Your task to perform on an android device: turn off data saver in the chrome app Image 0: 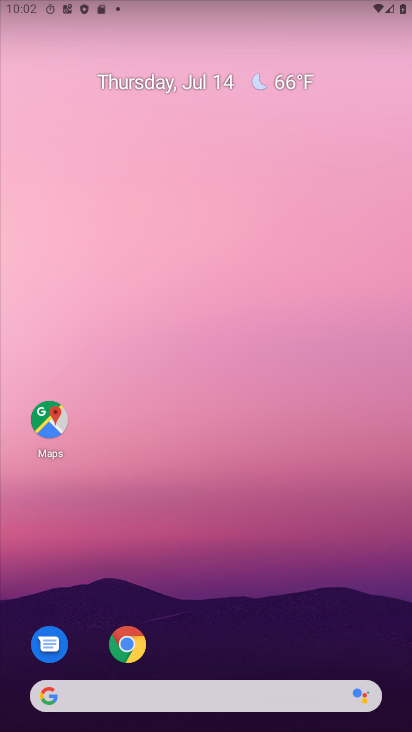
Step 0: drag from (212, 601) to (210, 329)
Your task to perform on an android device: turn off data saver in the chrome app Image 1: 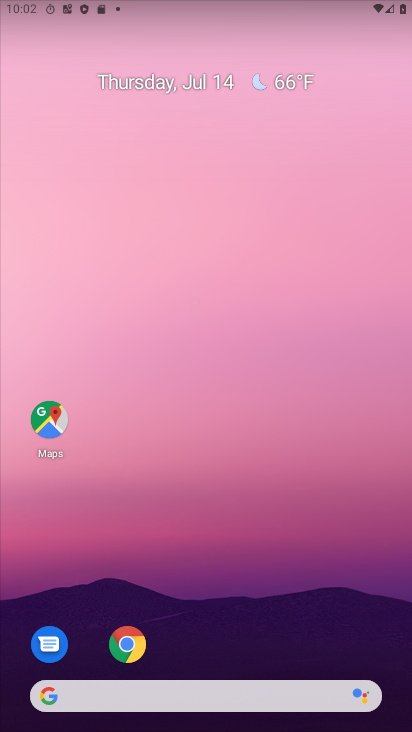
Step 1: drag from (241, 691) to (199, 233)
Your task to perform on an android device: turn off data saver in the chrome app Image 2: 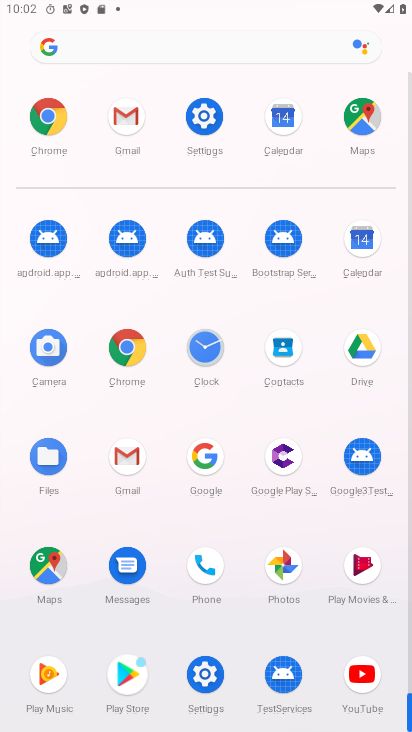
Step 2: drag from (228, 674) to (227, 152)
Your task to perform on an android device: turn off data saver in the chrome app Image 3: 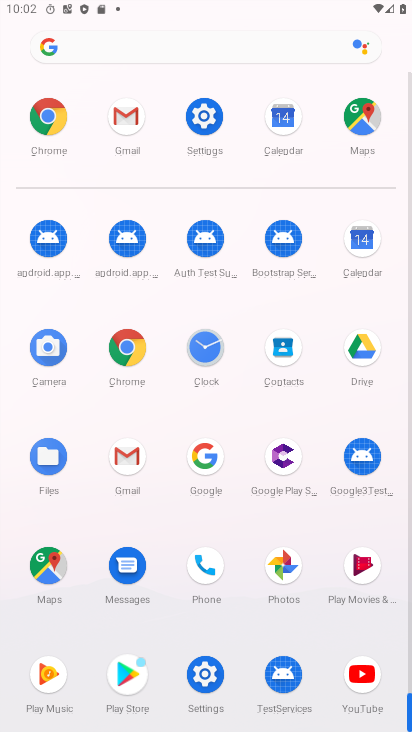
Step 3: click (32, 128)
Your task to perform on an android device: turn off data saver in the chrome app Image 4: 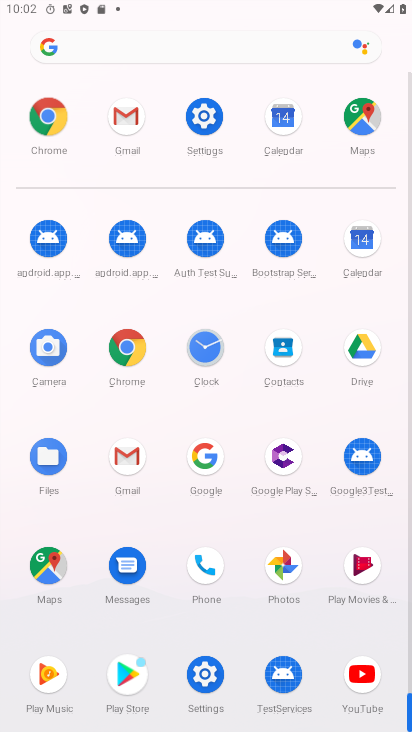
Step 4: click (39, 125)
Your task to perform on an android device: turn off data saver in the chrome app Image 5: 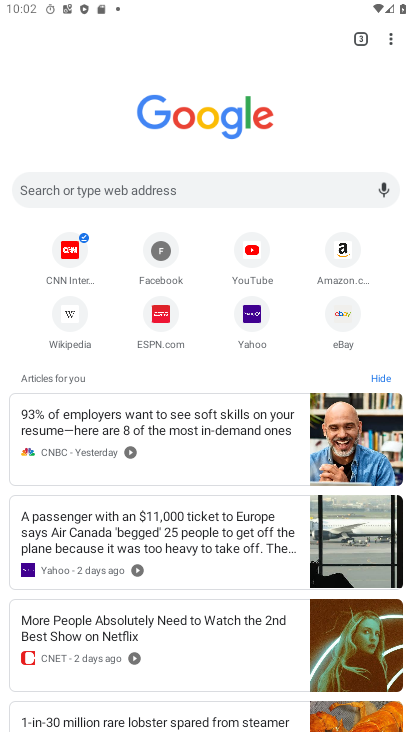
Step 5: drag from (389, 37) to (373, 89)
Your task to perform on an android device: turn off data saver in the chrome app Image 6: 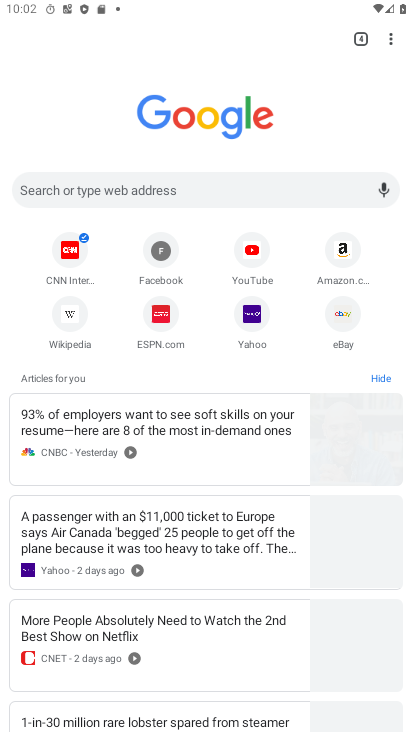
Step 6: click (254, 328)
Your task to perform on an android device: turn off data saver in the chrome app Image 7: 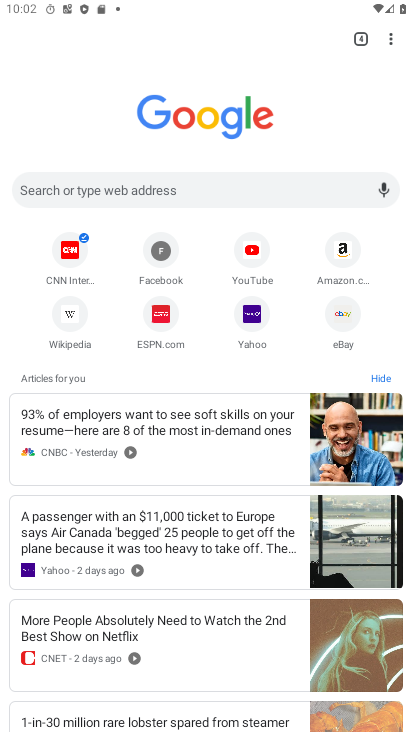
Step 7: click (252, 324)
Your task to perform on an android device: turn off data saver in the chrome app Image 8: 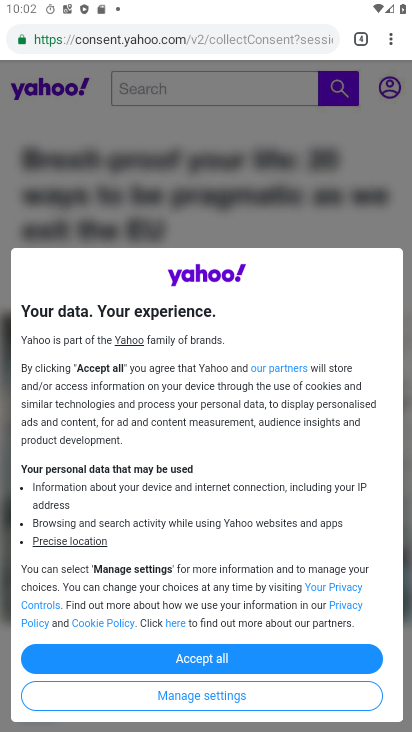
Step 8: drag from (394, 42) to (242, 472)
Your task to perform on an android device: turn off data saver in the chrome app Image 9: 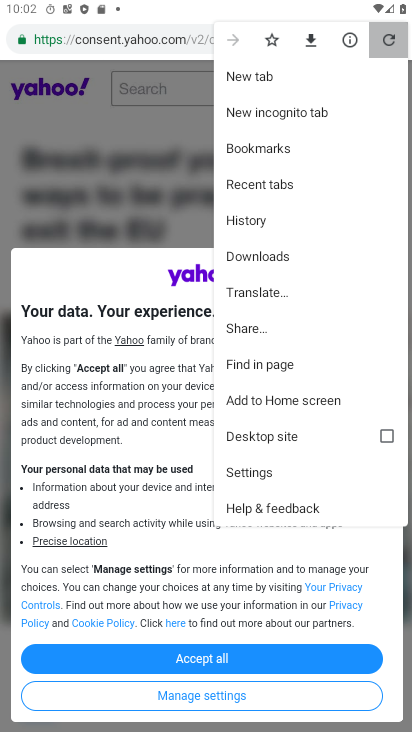
Step 9: click (239, 474)
Your task to perform on an android device: turn off data saver in the chrome app Image 10: 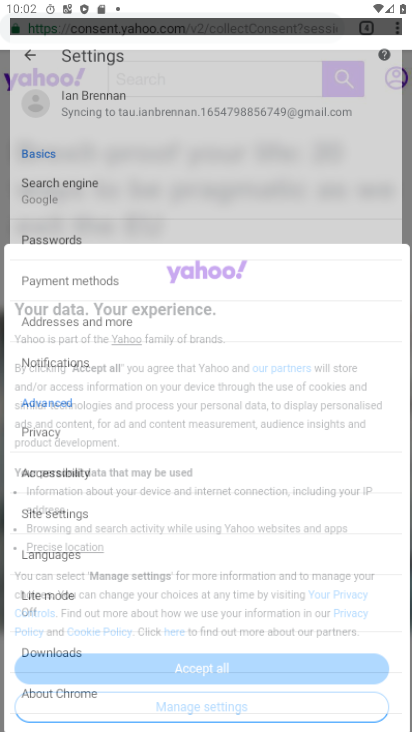
Step 10: click (239, 469)
Your task to perform on an android device: turn off data saver in the chrome app Image 11: 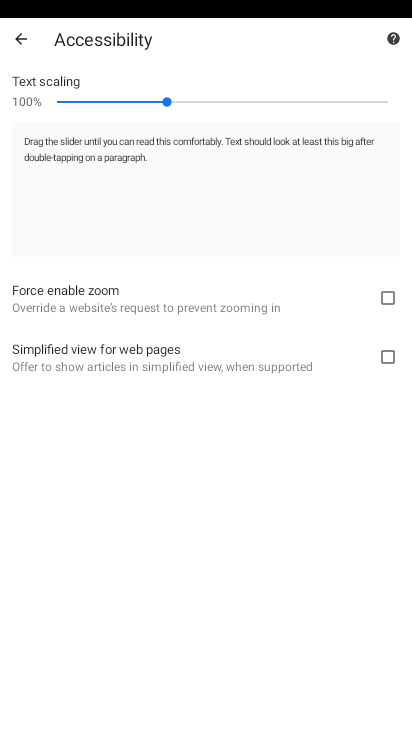
Step 11: click (17, 33)
Your task to perform on an android device: turn off data saver in the chrome app Image 12: 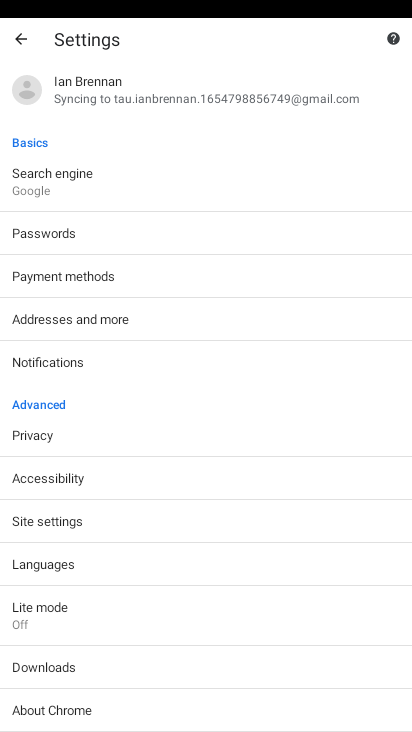
Step 12: click (46, 622)
Your task to perform on an android device: turn off data saver in the chrome app Image 13: 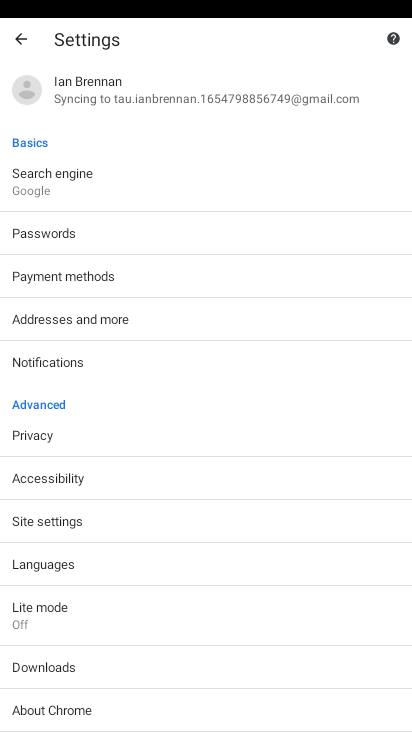
Step 13: click (45, 621)
Your task to perform on an android device: turn off data saver in the chrome app Image 14: 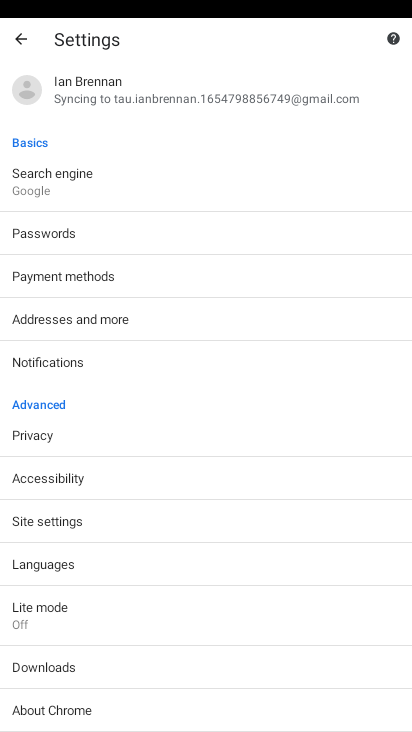
Step 14: click (45, 612)
Your task to perform on an android device: turn off data saver in the chrome app Image 15: 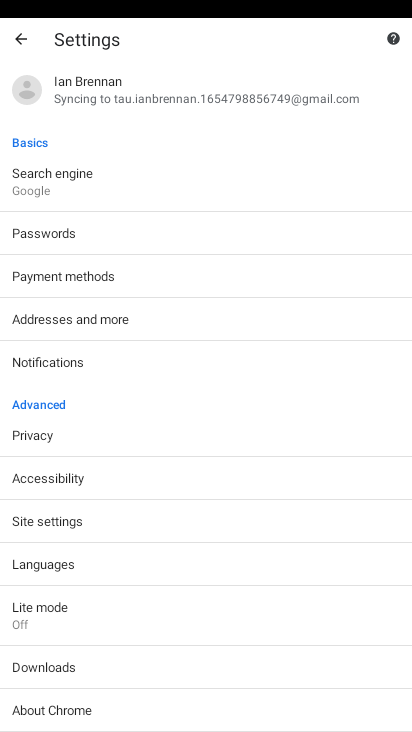
Step 15: click (46, 606)
Your task to perform on an android device: turn off data saver in the chrome app Image 16: 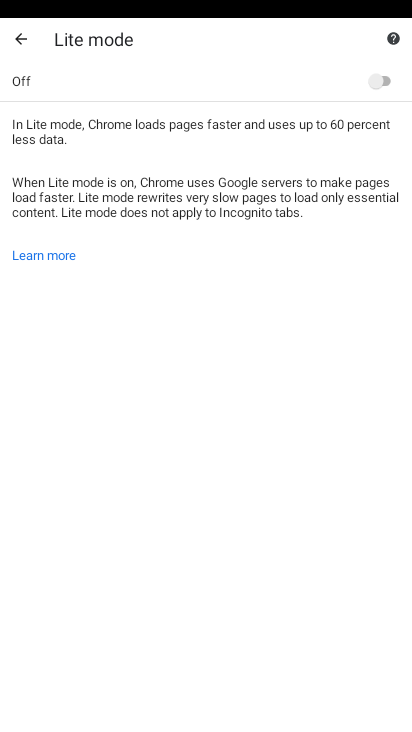
Step 16: click (46, 606)
Your task to perform on an android device: turn off data saver in the chrome app Image 17: 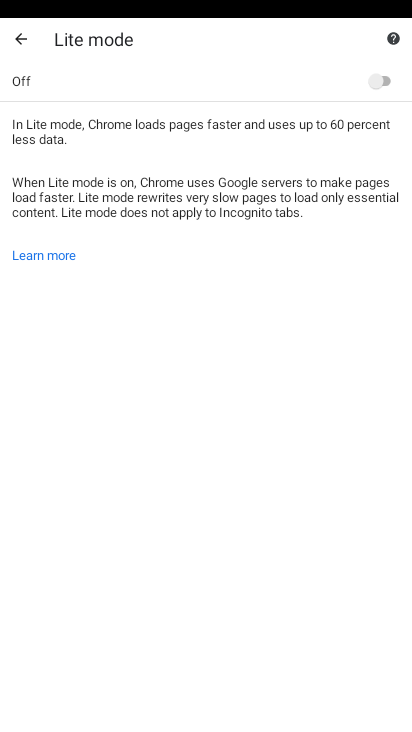
Step 17: task complete